Your task to perform on an android device: Open Maps and search for coffee Image 0: 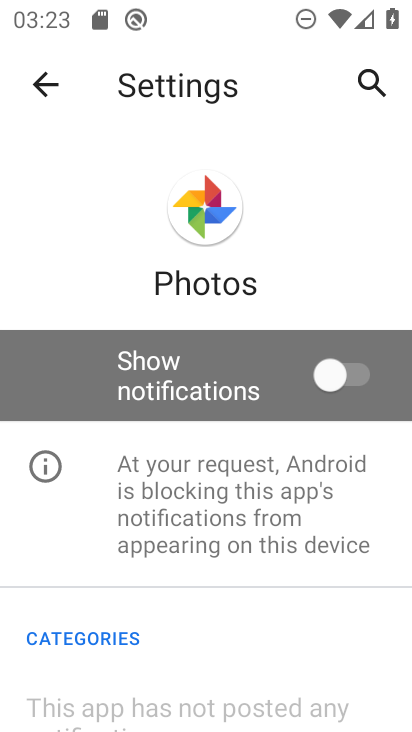
Step 0: press home button
Your task to perform on an android device: Open Maps and search for coffee Image 1: 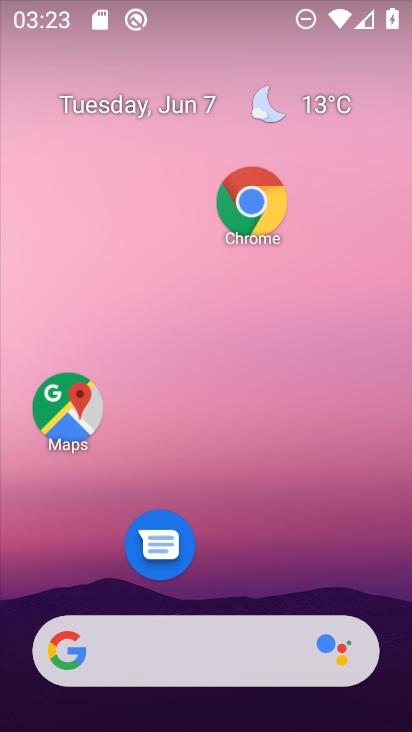
Step 1: click (86, 400)
Your task to perform on an android device: Open Maps and search for coffee Image 2: 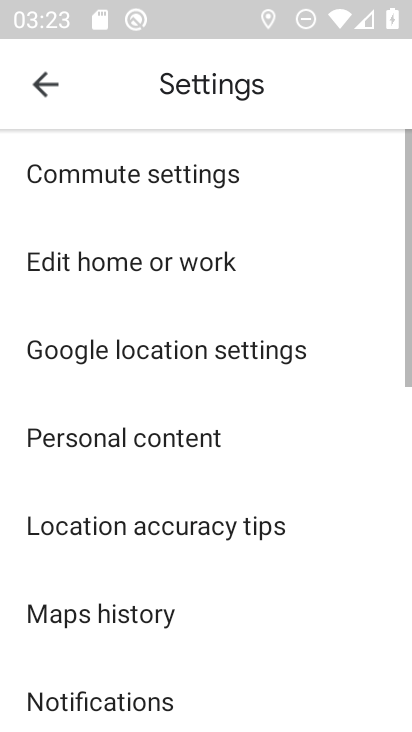
Step 2: click (46, 80)
Your task to perform on an android device: Open Maps and search for coffee Image 3: 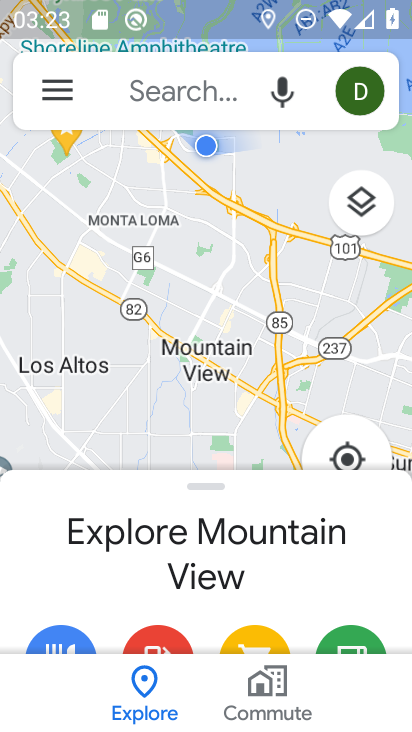
Step 3: click (185, 85)
Your task to perform on an android device: Open Maps and search for coffee Image 4: 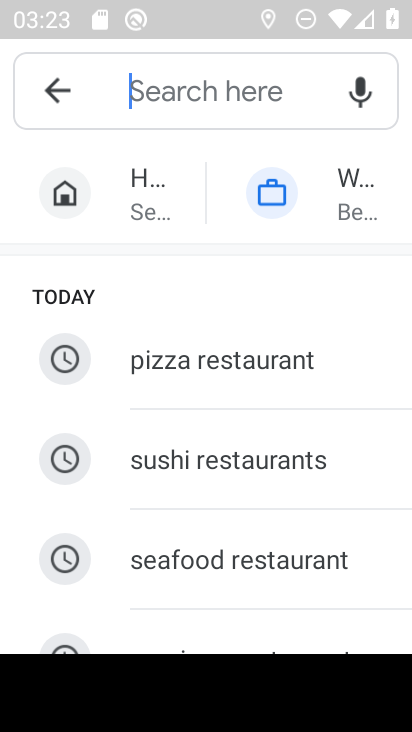
Step 4: drag from (262, 583) to (263, 327)
Your task to perform on an android device: Open Maps and search for coffee Image 5: 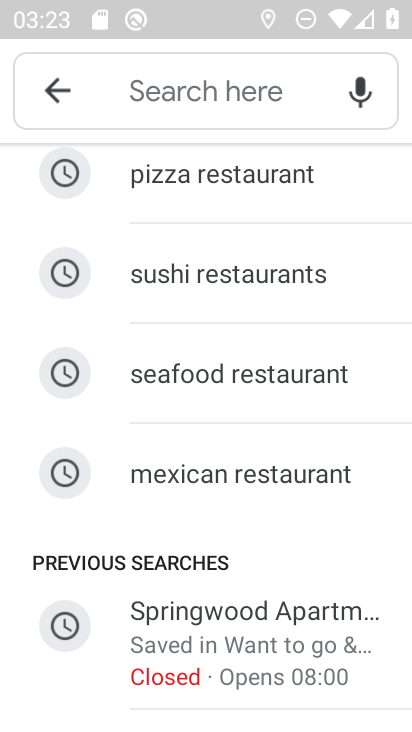
Step 5: click (188, 90)
Your task to perform on an android device: Open Maps and search for coffee Image 6: 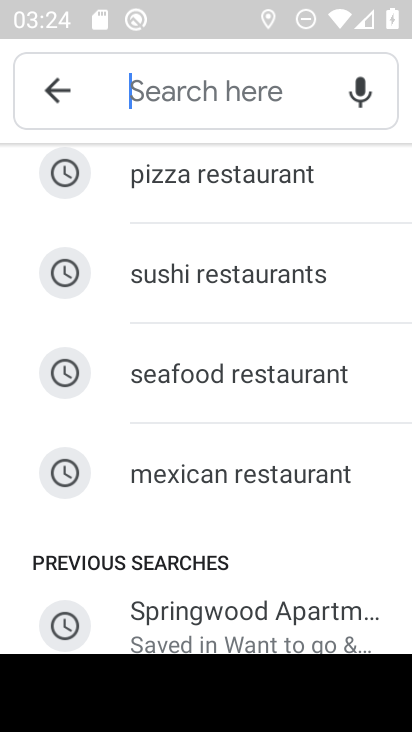
Step 6: type "coffee"
Your task to perform on an android device: Open Maps and search for coffee Image 7: 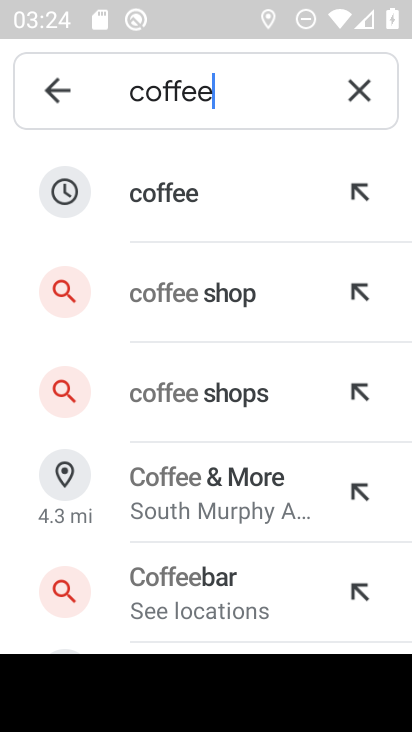
Step 7: click (172, 197)
Your task to perform on an android device: Open Maps and search for coffee Image 8: 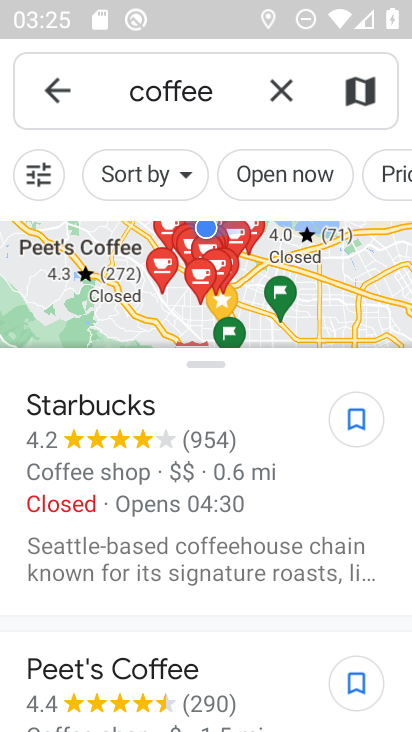
Step 8: task complete